Your task to perform on an android device: delete the emails in spam in the gmail app Image 0: 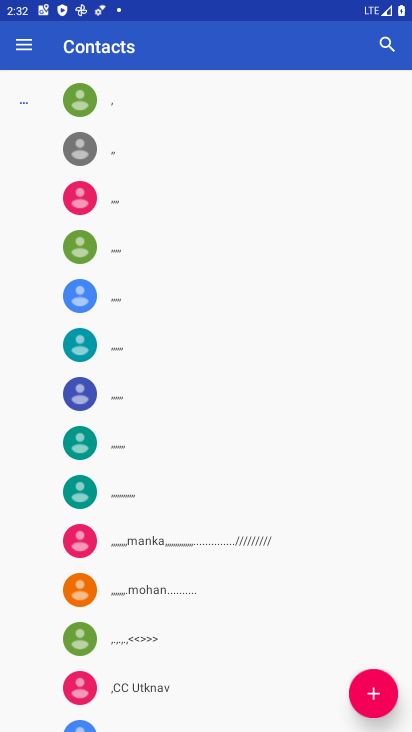
Step 0: press home button
Your task to perform on an android device: delete the emails in spam in the gmail app Image 1: 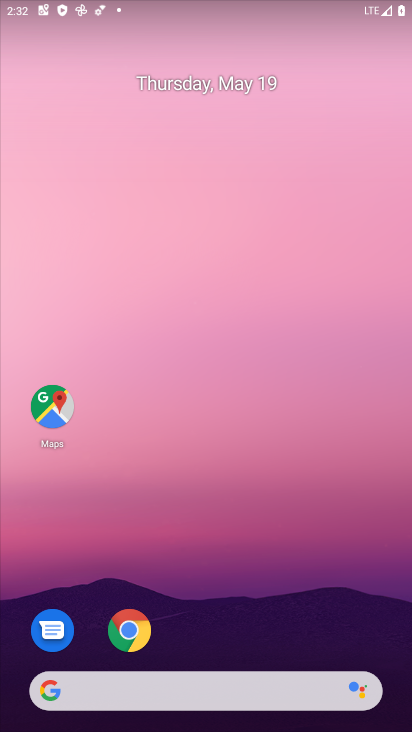
Step 1: drag from (389, 639) to (303, 87)
Your task to perform on an android device: delete the emails in spam in the gmail app Image 2: 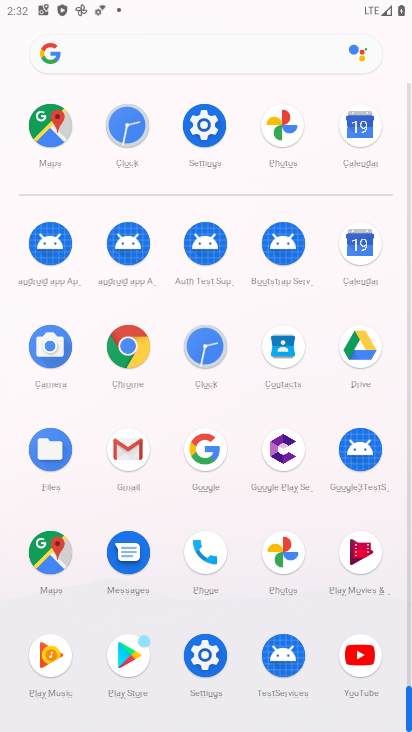
Step 2: click (128, 446)
Your task to perform on an android device: delete the emails in spam in the gmail app Image 3: 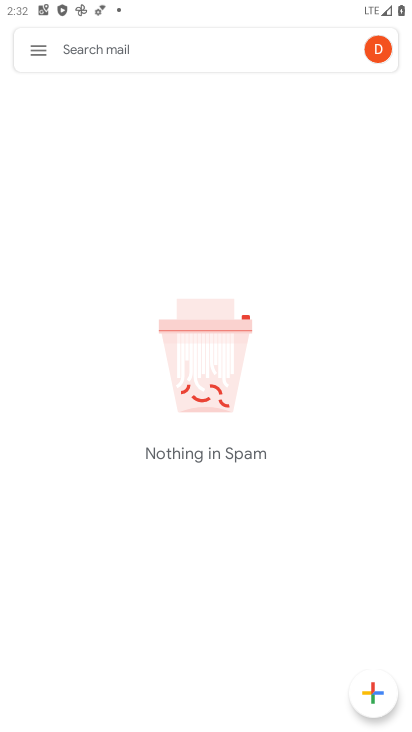
Step 3: click (39, 49)
Your task to perform on an android device: delete the emails in spam in the gmail app Image 4: 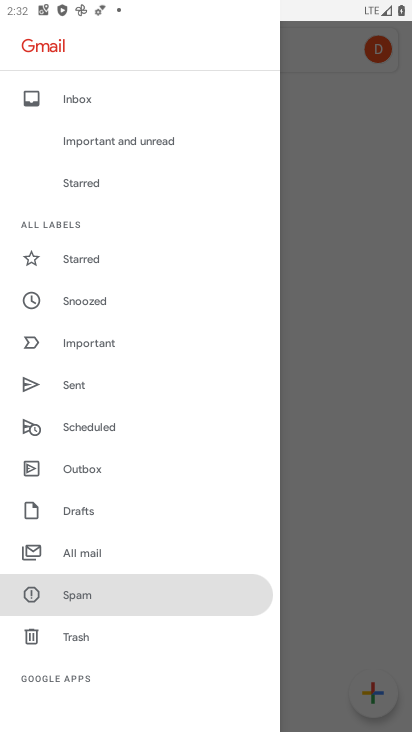
Step 4: click (92, 591)
Your task to perform on an android device: delete the emails in spam in the gmail app Image 5: 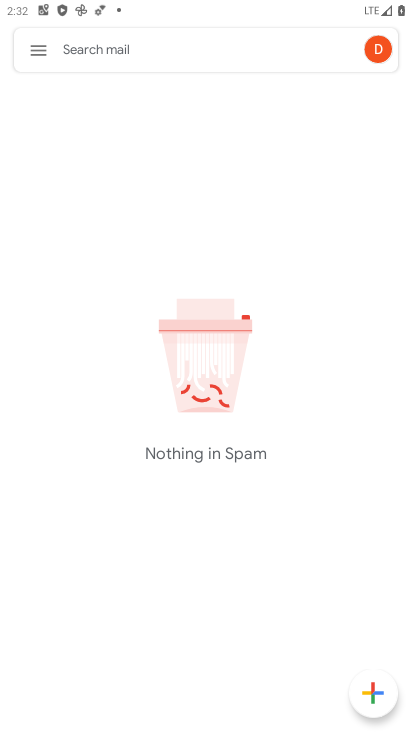
Step 5: task complete